Your task to perform on an android device: Open the calendar and show me this week's events? Image 0: 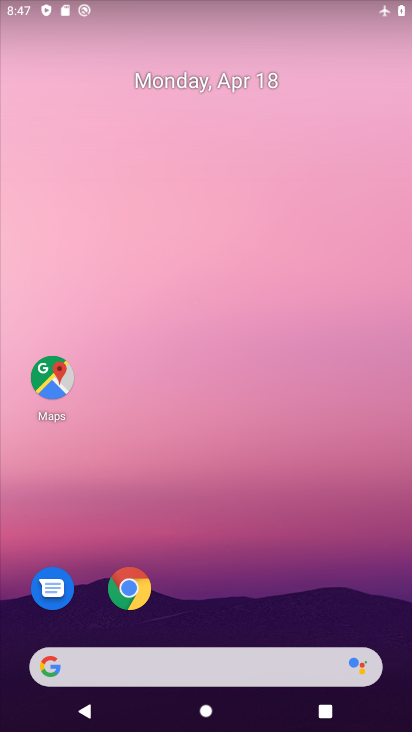
Step 0: drag from (258, 598) to (256, 123)
Your task to perform on an android device: Open the calendar and show me this week's events? Image 1: 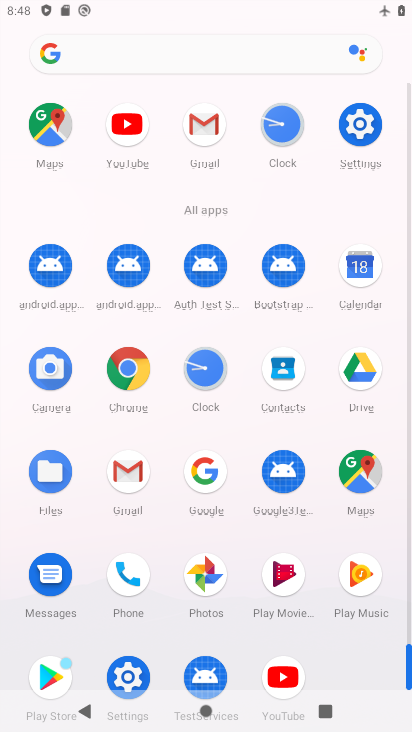
Step 1: drag from (292, 618) to (335, 246)
Your task to perform on an android device: Open the calendar and show me this week's events? Image 2: 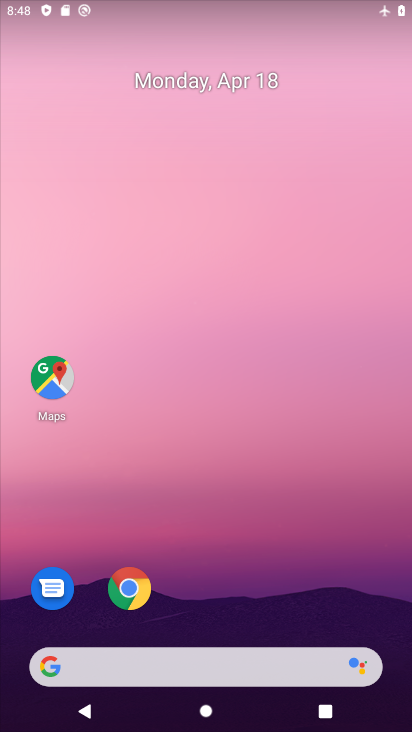
Step 2: drag from (348, 199) to (336, 333)
Your task to perform on an android device: Open the calendar and show me this week's events? Image 3: 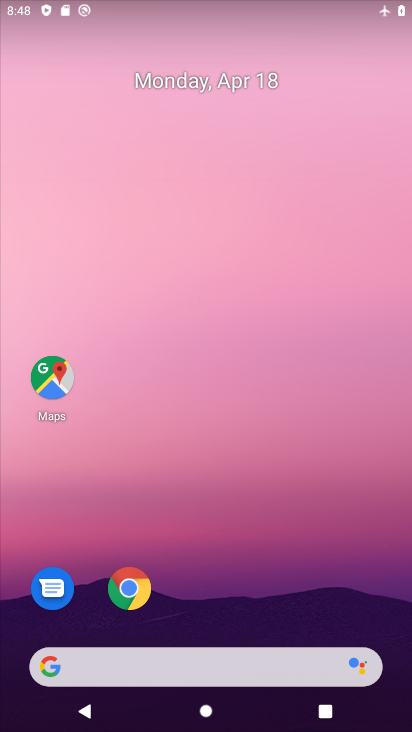
Step 3: drag from (230, 598) to (286, 187)
Your task to perform on an android device: Open the calendar and show me this week's events? Image 4: 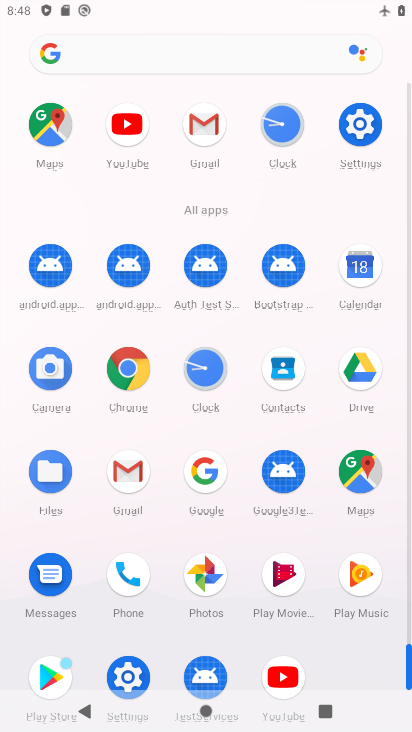
Step 4: click (357, 274)
Your task to perform on an android device: Open the calendar and show me this week's events? Image 5: 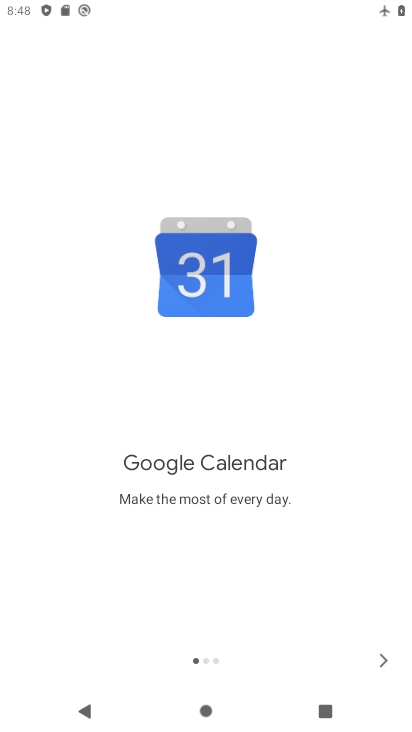
Step 5: click (358, 650)
Your task to perform on an android device: Open the calendar and show me this week's events? Image 6: 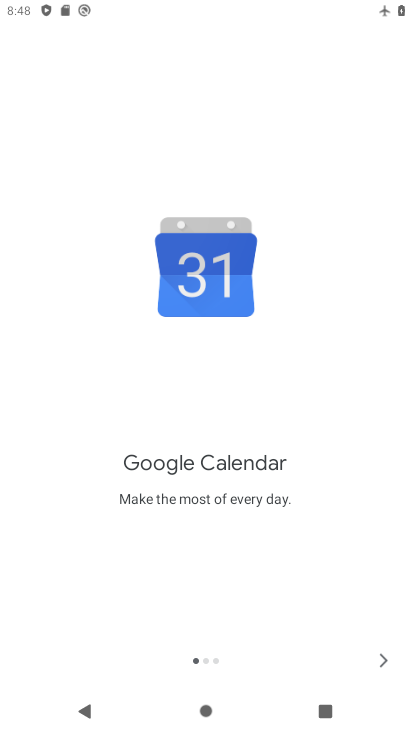
Step 6: click (390, 650)
Your task to perform on an android device: Open the calendar and show me this week's events? Image 7: 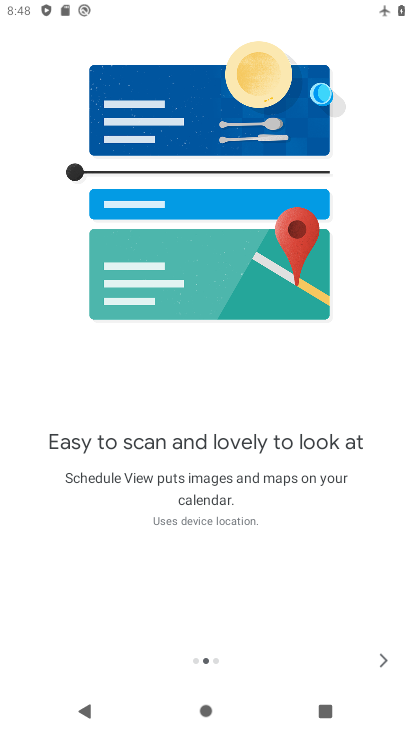
Step 7: click (370, 664)
Your task to perform on an android device: Open the calendar and show me this week's events? Image 8: 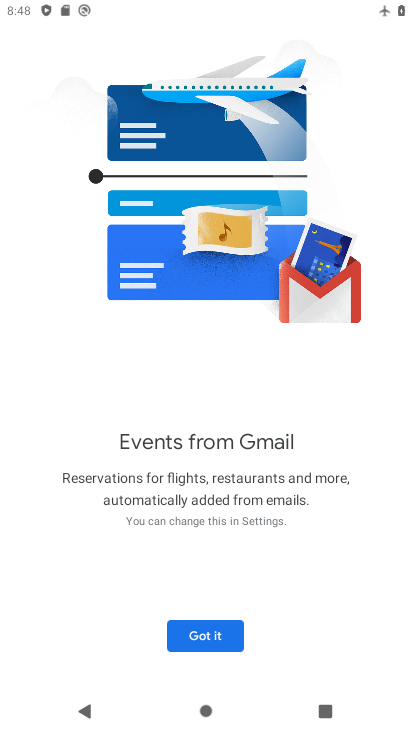
Step 8: click (208, 632)
Your task to perform on an android device: Open the calendar and show me this week's events? Image 9: 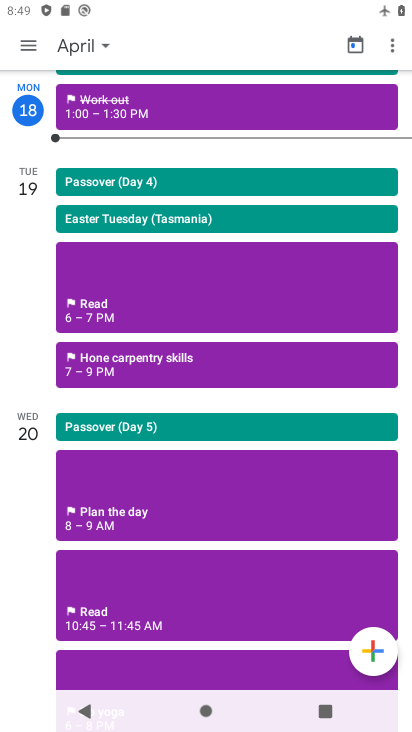
Step 9: click (23, 48)
Your task to perform on an android device: Open the calendar and show me this week's events? Image 10: 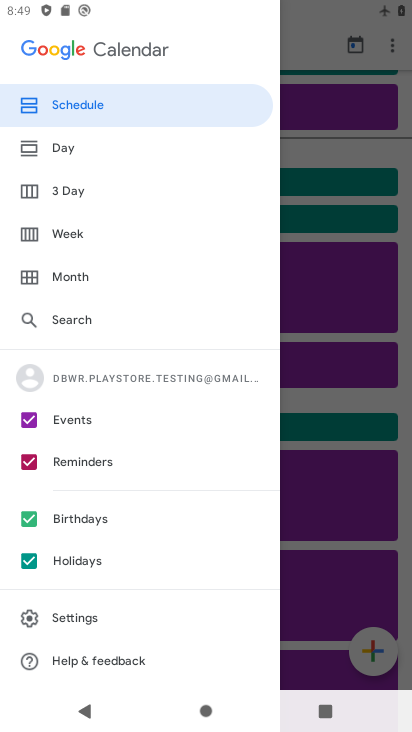
Step 10: click (83, 273)
Your task to perform on an android device: Open the calendar and show me this week's events? Image 11: 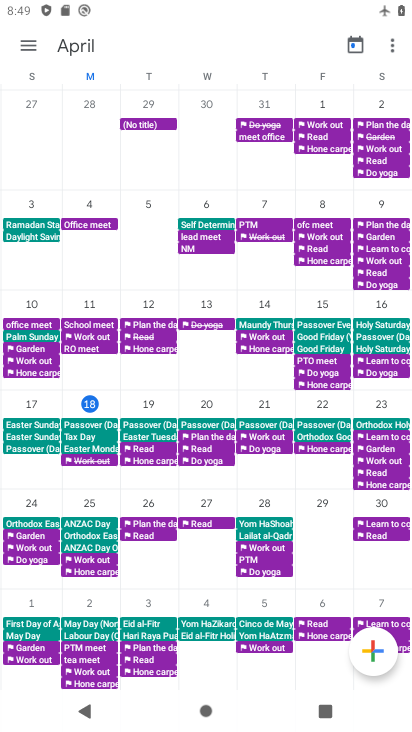
Step 11: click (267, 528)
Your task to perform on an android device: Open the calendar and show me this week's events? Image 12: 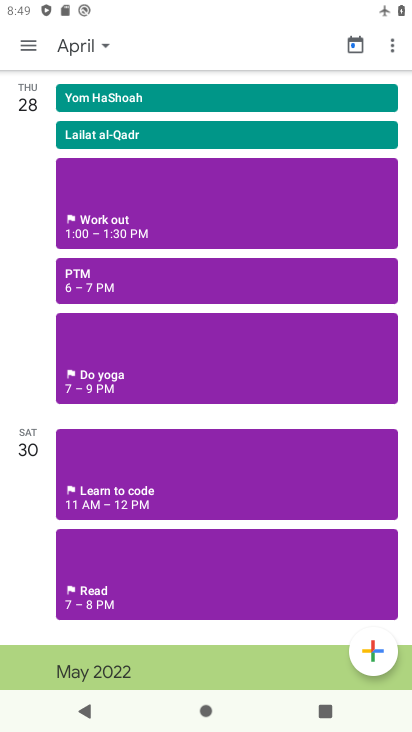
Step 12: click (24, 47)
Your task to perform on an android device: Open the calendar and show me this week's events? Image 13: 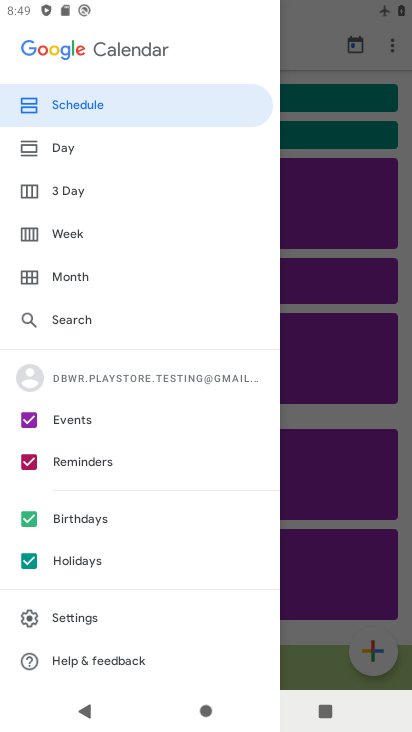
Step 13: click (74, 425)
Your task to perform on an android device: Open the calendar and show me this week's events? Image 14: 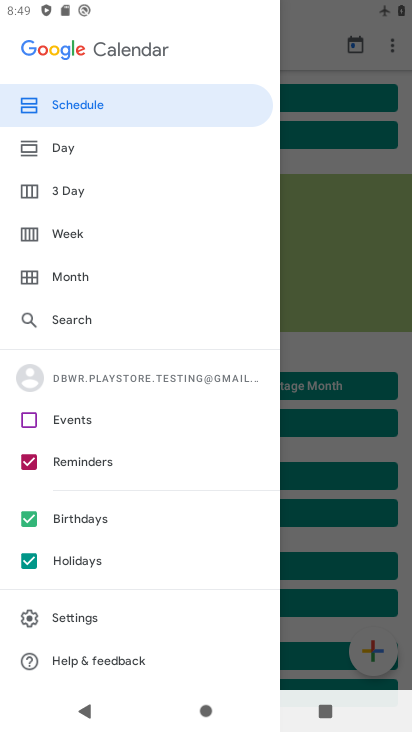
Step 14: click (229, 433)
Your task to perform on an android device: Open the calendar and show me this week's events? Image 15: 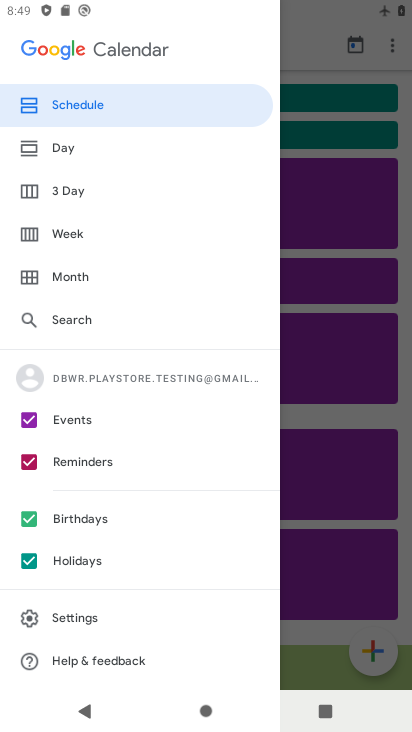
Step 15: click (229, 433)
Your task to perform on an android device: Open the calendar and show me this week's events? Image 16: 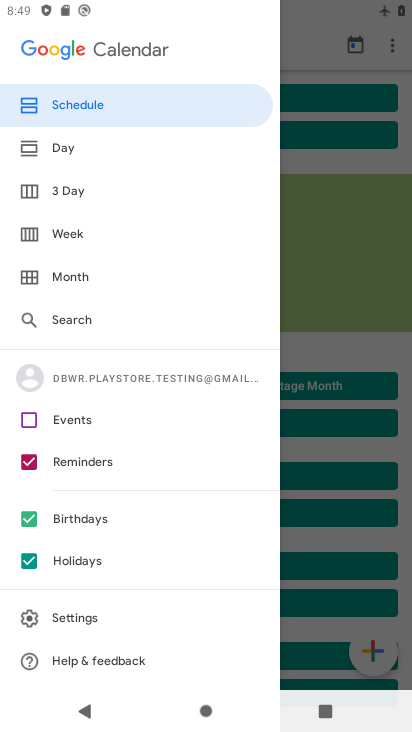
Step 16: click (229, 427)
Your task to perform on an android device: Open the calendar and show me this week's events? Image 17: 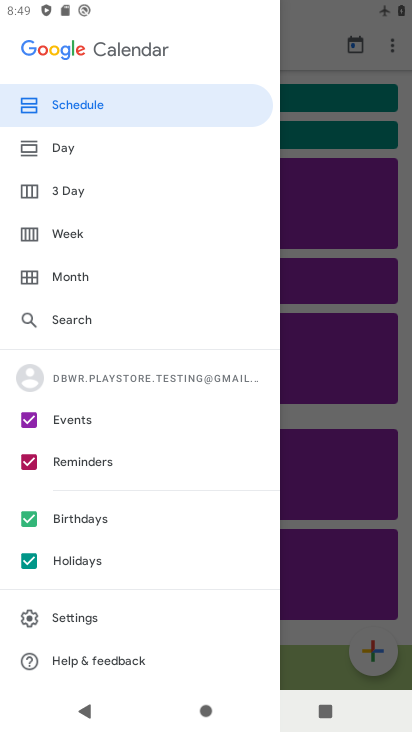
Step 17: click (352, 329)
Your task to perform on an android device: Open the calendar and show me this week's events? Image 18: 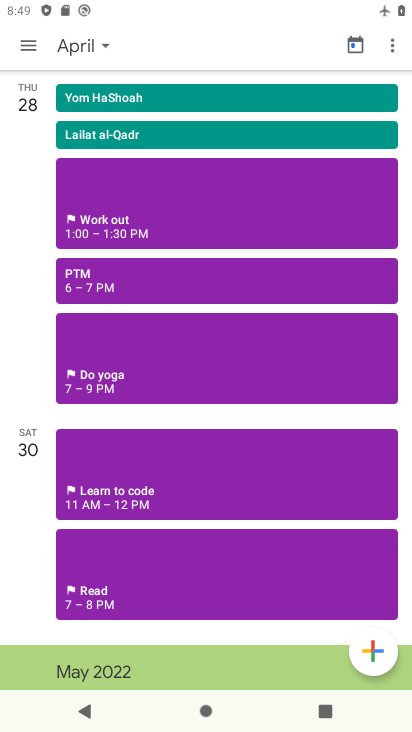
Step 18: click (21, 49)
Your task to perform on an android device: Open the calendar and show me this week's events? Image 19: 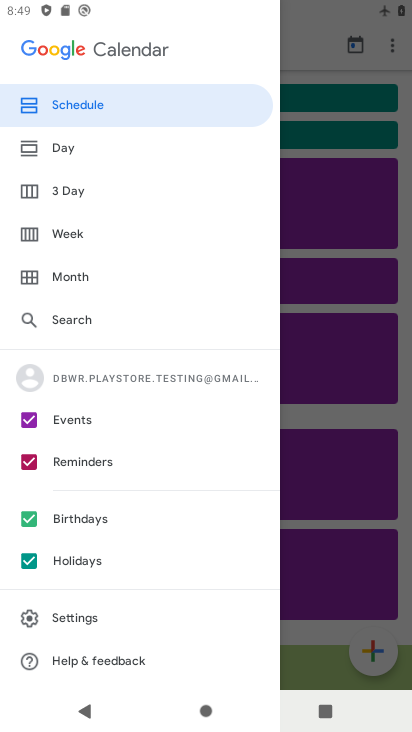
Step 19: click (90, 284)
Your task to perform on an android device: Open the calendar and show me this week's events? Image 20: 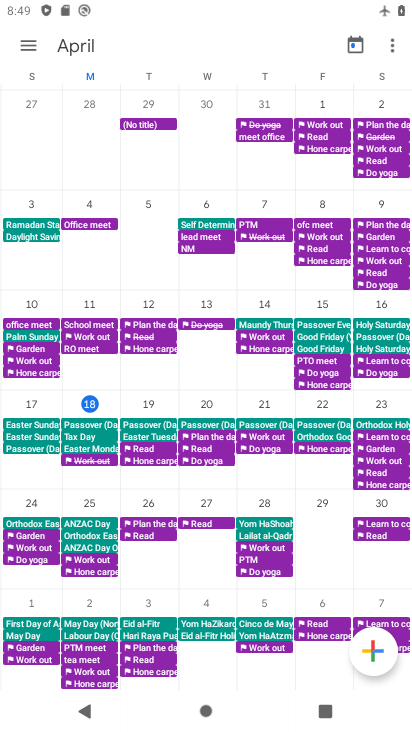
Step 20: click (141, 526)
Your task to perform on an android device: Open the calendar and show me this week's events? Image 21: 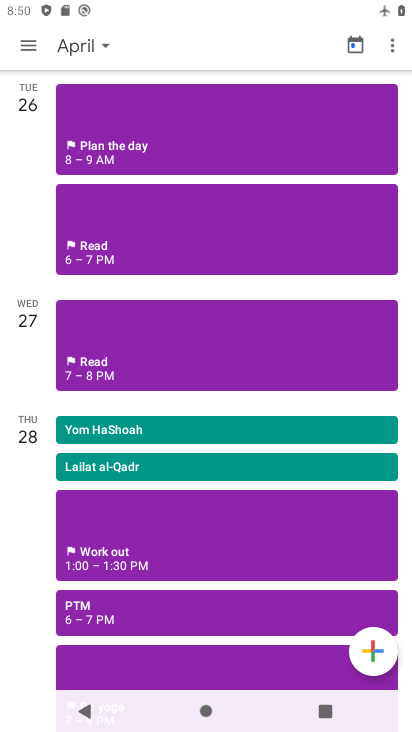
Step 21: task complete